Your task to perform on an android device: Search for seafood restaurants on Google Maps Image 0: 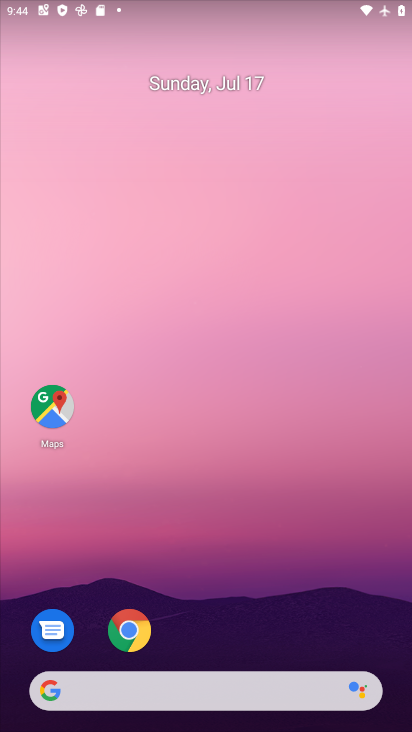
Step 0: click (48, 429)
Your task to perform on an android device: Search for seafood restaurants on Google Maps Image 1: 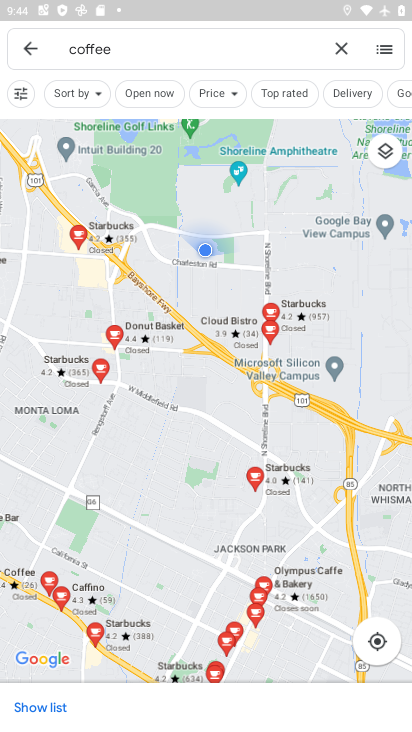
Step 1: click (288, 58)
Your task to perform on an android device: Search for seafood restaurants on Google Maps Image 2: 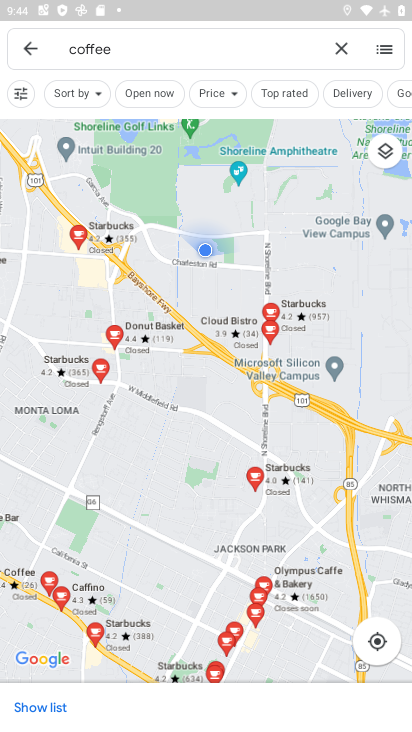
Step 2: click (345, 58)
Your task to perform on an android device: Search for seafood restaurants on Google Maps Image 3: 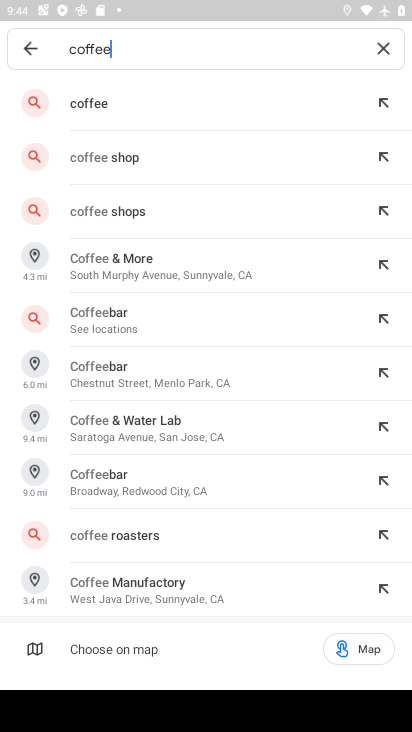
Step 3: click (368, 50)
Your task to perform on an android device: Search for seafood restaurants on Google Maps Image 4: 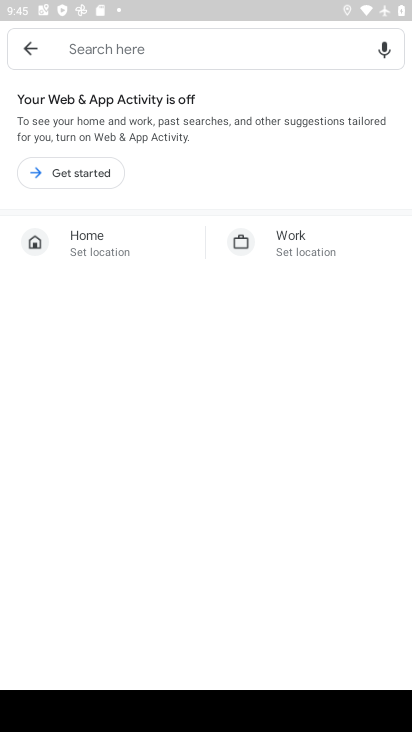
Step 4: type "seafood"
Your task to perform on an android device: Search for seafood restaurants on Google Maps Image 5: 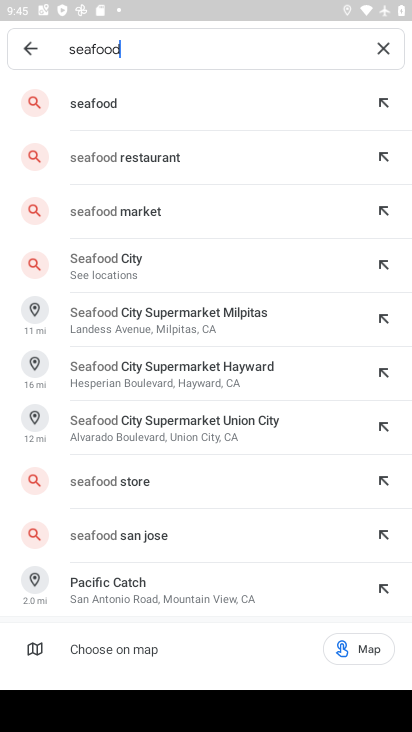
Step 5: click (153, 94)
Your task to perform on an android device: Search for seafood restaurants on Google Maps Image 6: 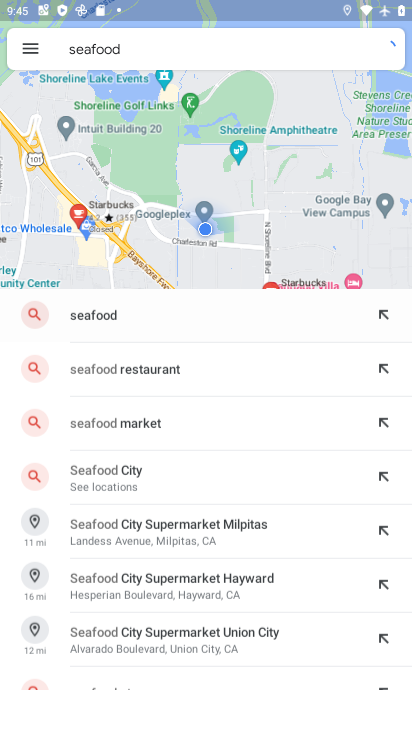
Step 6: task complete